Your task to perform on an android device: toggle javascript in the chrome app Image 0: 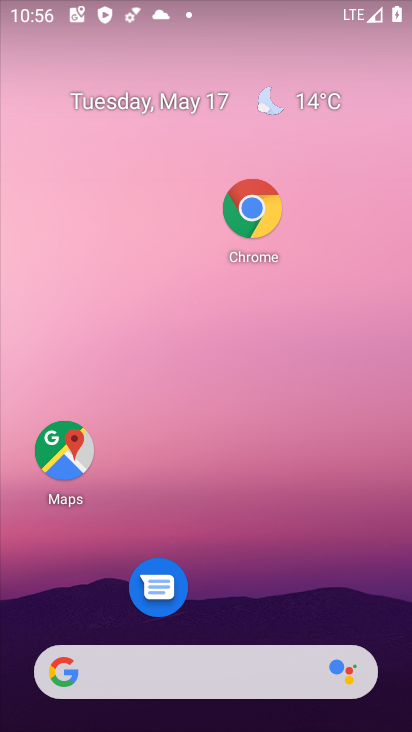
Step 0: click (257, 218)
Your task to perform on an android device: toggle javascript in the chrome app Image 1: 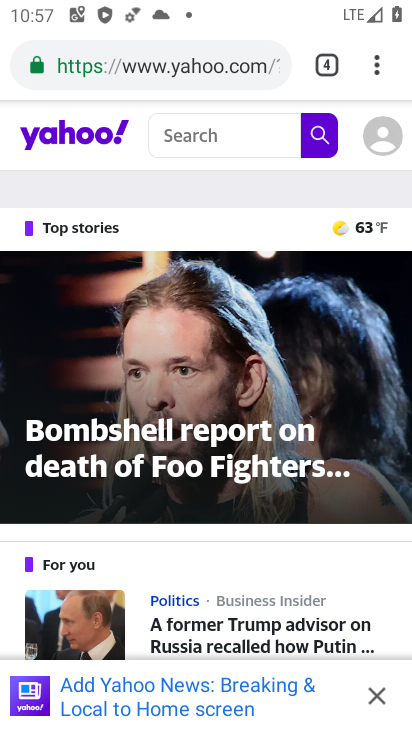
Step 1: click (376, 63)
Your task to perform on an android device: toggle javascript in the chrome app Image 2: 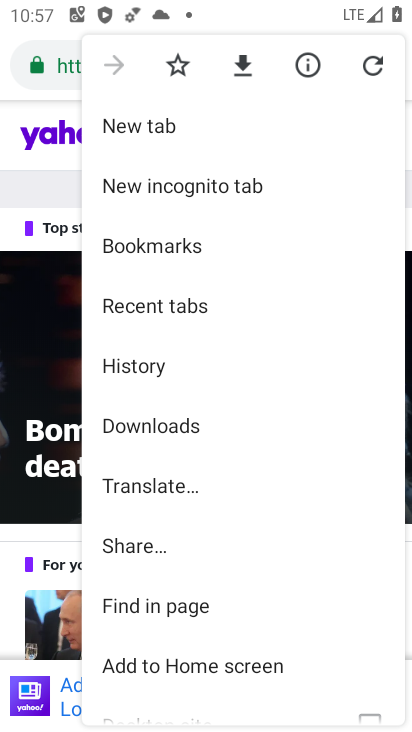
Step 2: click (215, 617)
Your task to perform on an android device: toggle javascript in the chrome app Image 3: 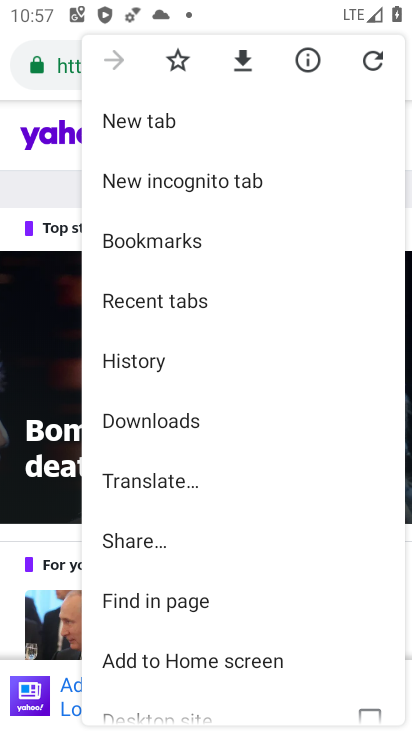
Step 3: drag from (225, 630) to (204, 371)
Your task to perform on an android device: toggle javascript in the chrome app Image 4: 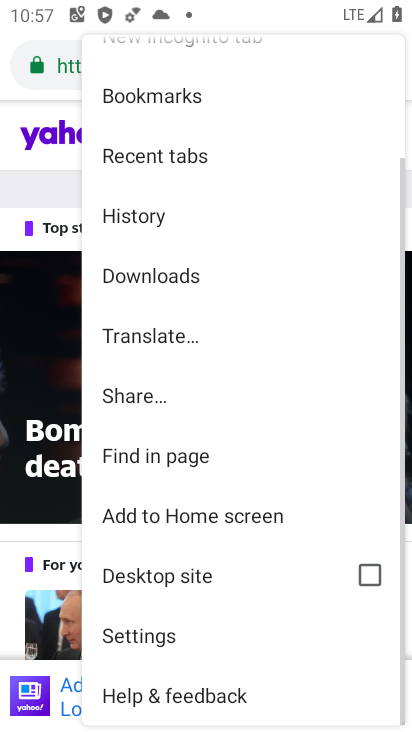
Step 4: click (194, 638)
Your task to perform on an android device: toggle javascript in the chrome app Image 5: 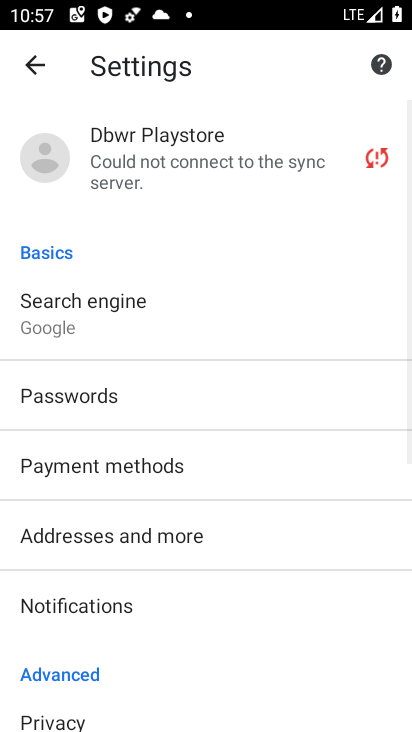
Step 5: drag from (199, 636) to (177, 305)
Your task to perform on an android device: toggle javascript in the chrome app Image 6: 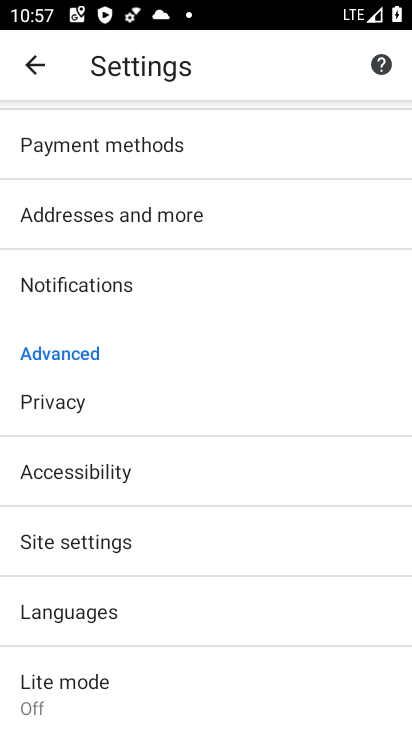
Step 6: click (136, 556)
Your task to perform on an android device: toggle javascript in the chrome app Image 7: 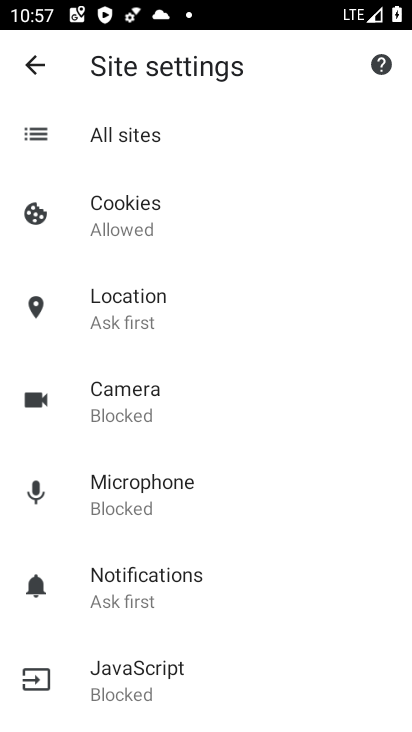
Step 7: click (110, 694)
Your task to perform on an android device: toggle javascript in the chrome app Image 8: 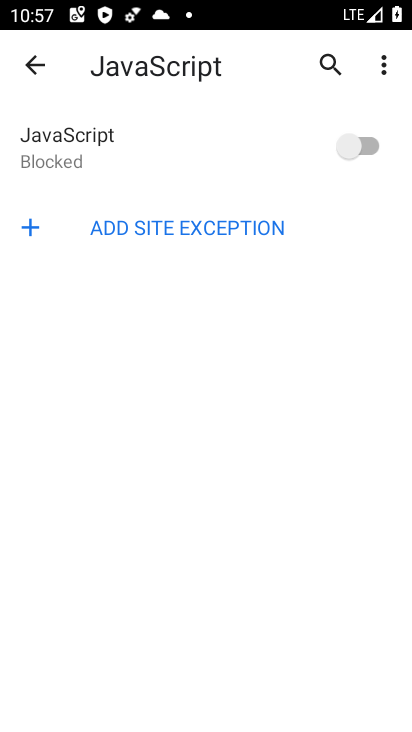
Step 8: click (373, 142)
Your task to perform on an android device: toggle javascript in the chrome app Image 9: 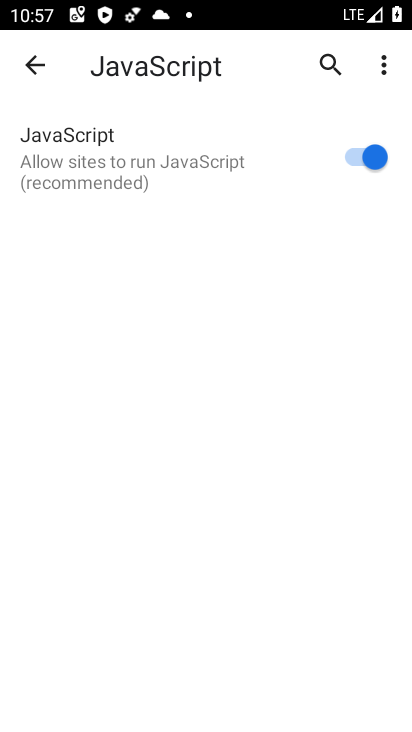
Step 9: task complete